Your task to perform on an android device: Open Google Chrome and open the bookmarks view Image 0: 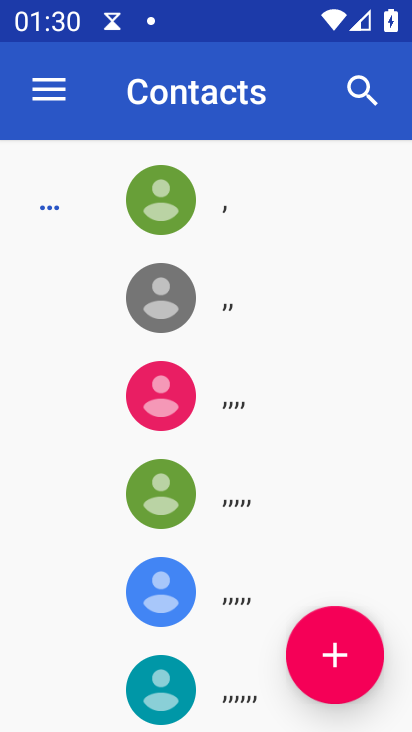
Step 0: press home button
Your task to perform on an android device: Open Google Chrome and open the bookmarks view Image 1: 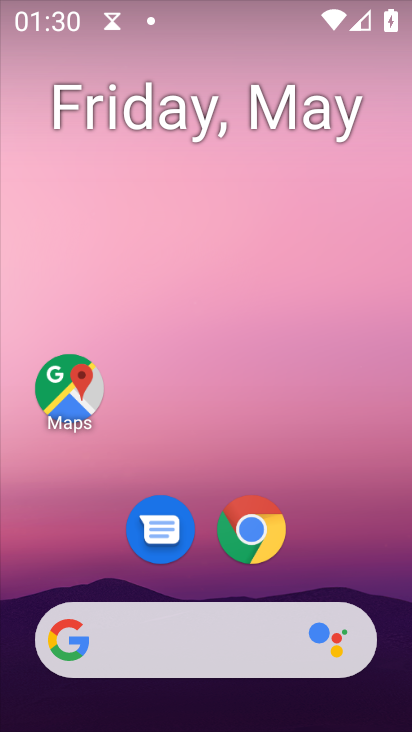
Step 1: click (253, 511)
Your task to perform on an android device: Open Google Chrome and open the bookmarks view Image 2: 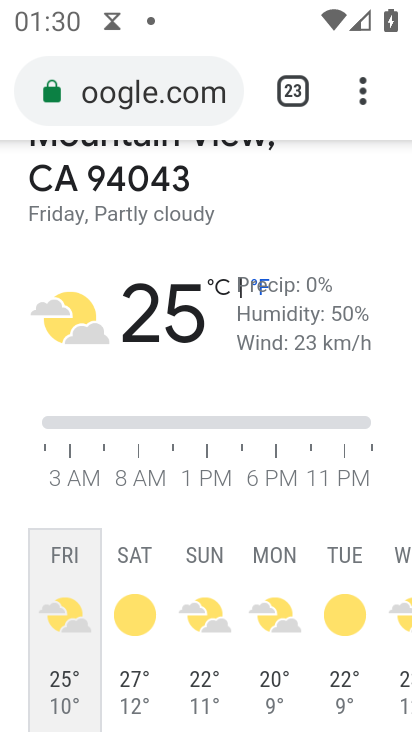
Step 2: click (374, 84)
Your task to perform on an android device: Open Google Chrome and open the bookmarks view Image 3: 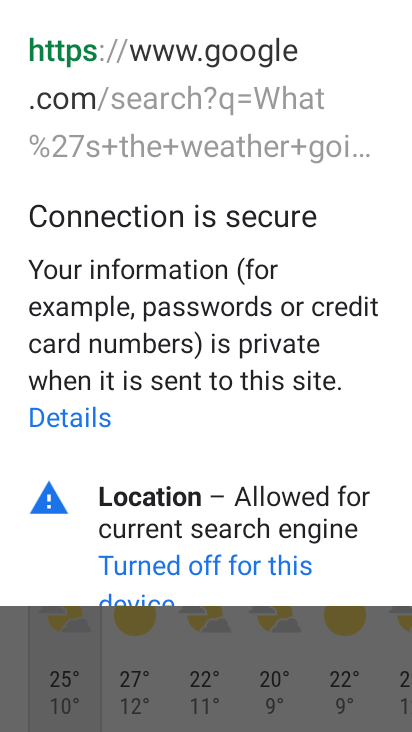
Step 3: press back button
Your task to perform on an android device: Open Google Chrome and open the bookmarks view Image 4: 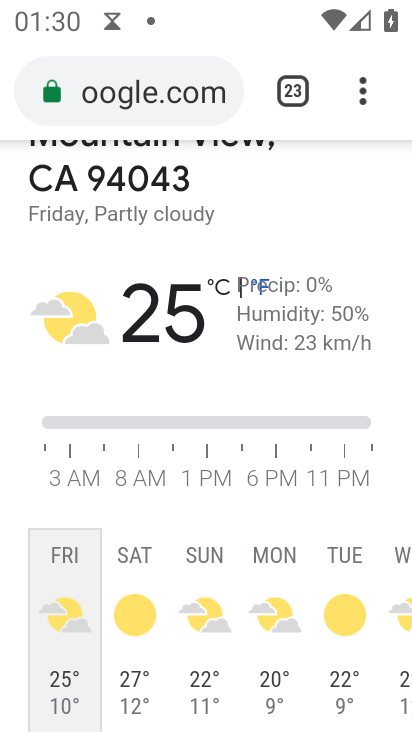
Step 4: click (339, 83)
Your task to perform on an android device: Open Google Chrome and open the bookmarks view Image 5: 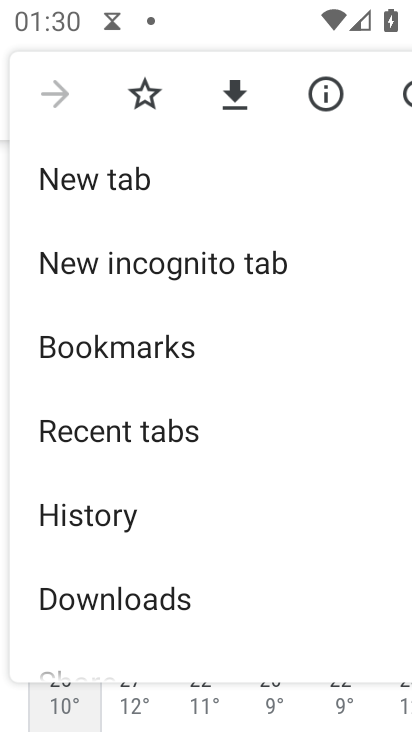
Step 5: drag from (161, 623) to (241, 193)
Your task to perform on an android device: Open Google Chrome and open the bookmarks view Image 6: 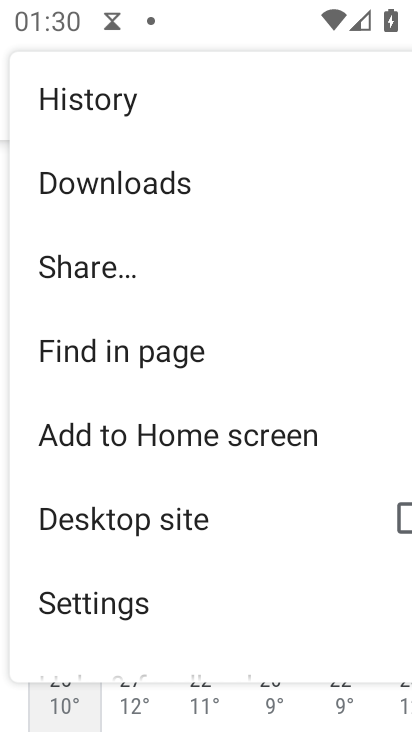
Step 6: drag from (153, 176) to (160, 580)
Your task to perform on an android device: Open Google Chrome and open the bookmarks view Image 7: 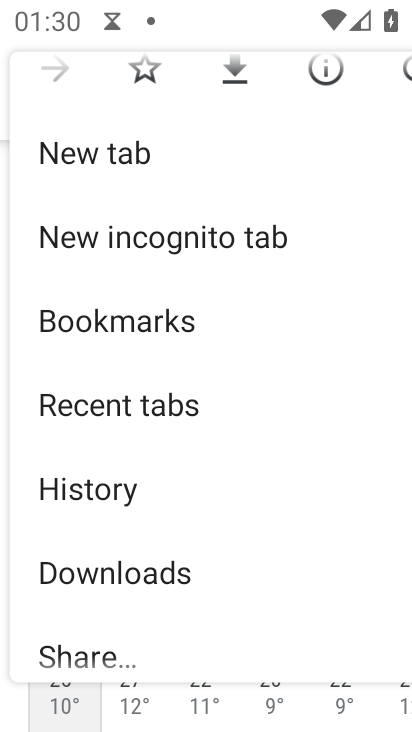
Step 7: click (205, 322)
Your task to perform on an android device: Open Google Chrome and open the bookmarks view Image 8: 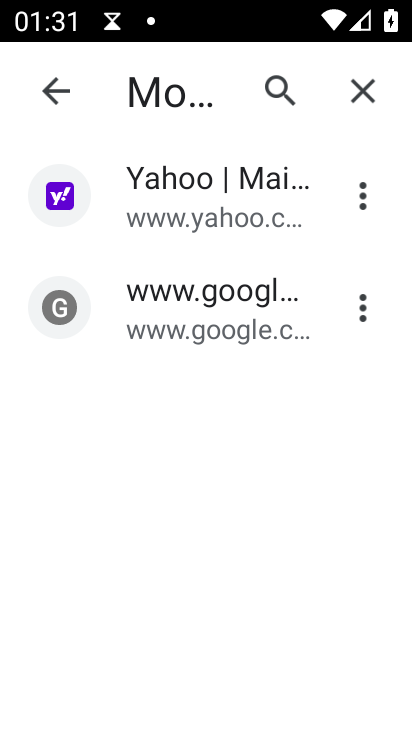
Step 8: task complete